Your task to perform on an android device: Open Google Maps Image 0: 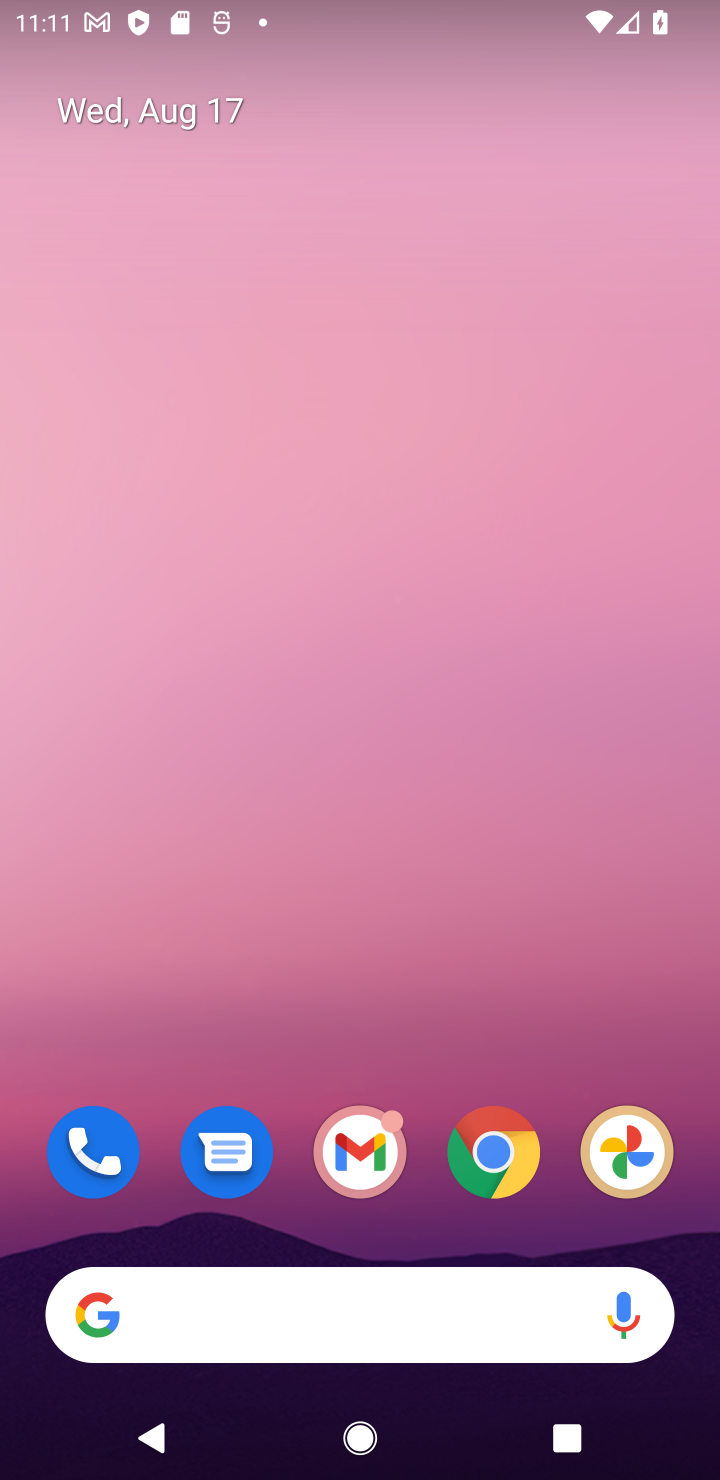
Step 0: drag from (487, 810) to (250, 83)
Your task to perform on an android device: Open Google Maps Image 1: 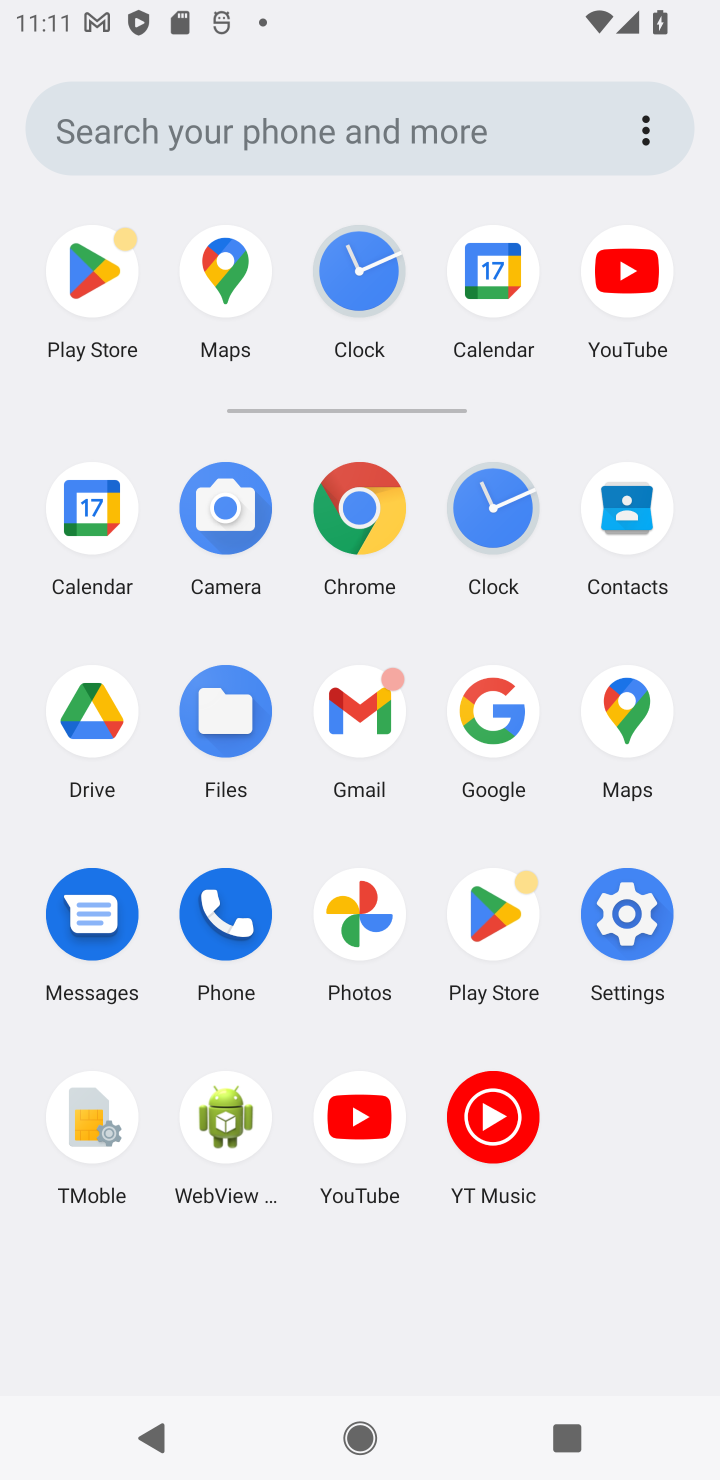
Step 1: click (381, 762)
Your task to perform on an android device: Open Google Maps Image 2: 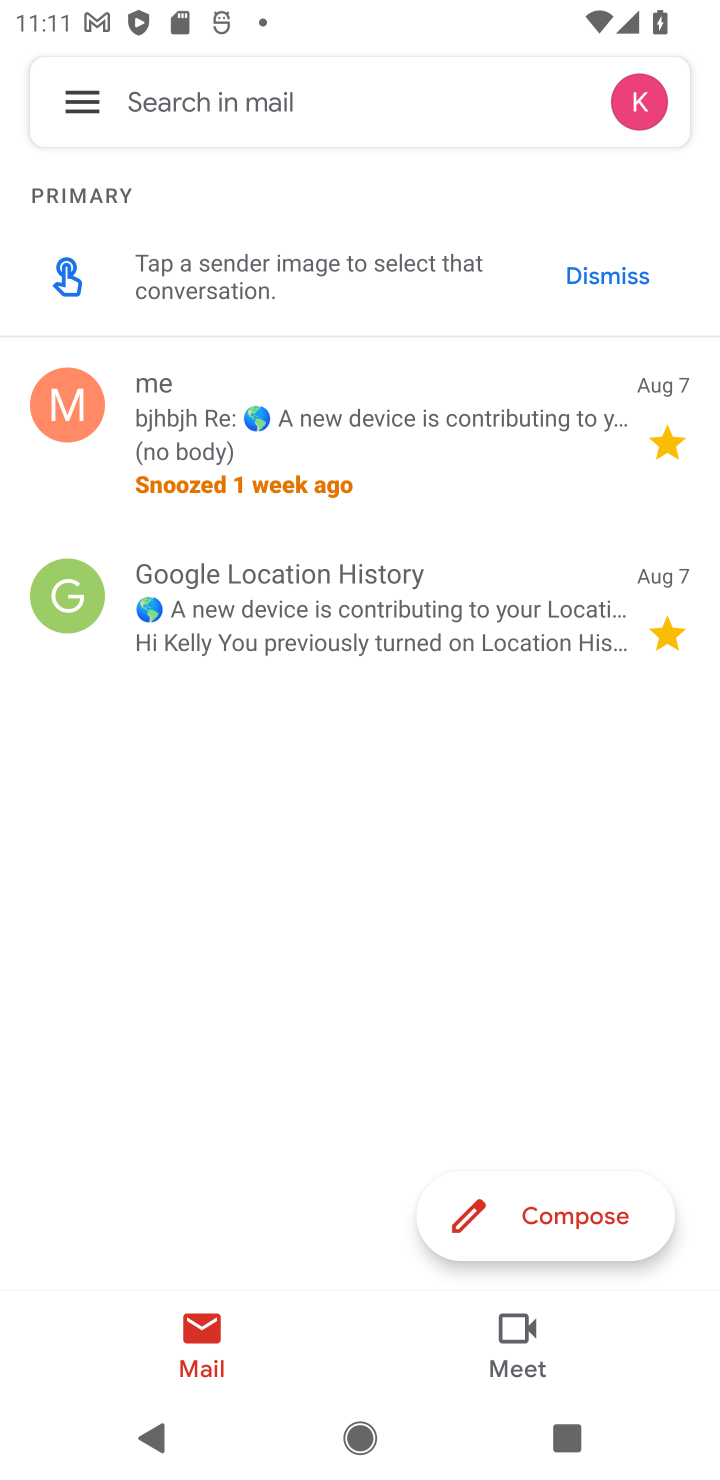
Step 2: task complete